Your task to perform on an android device: Open the calendar app, open the side menu, and click the "Day" option Image 0: 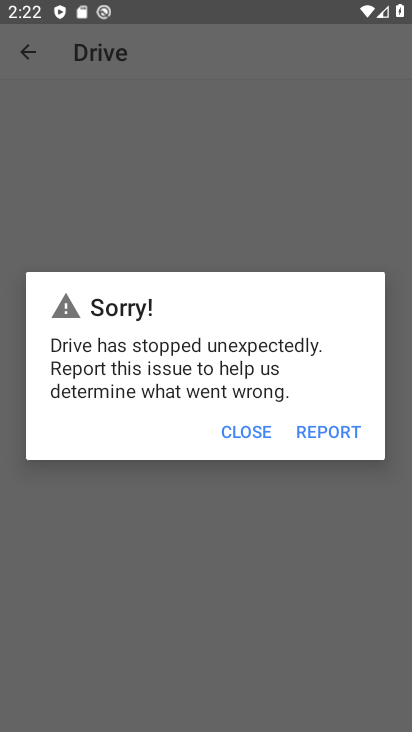
Step 0: press home button
Your task to perform on an android device: Open the calendar app, open the side menu, and click the "Day" option Image 1: 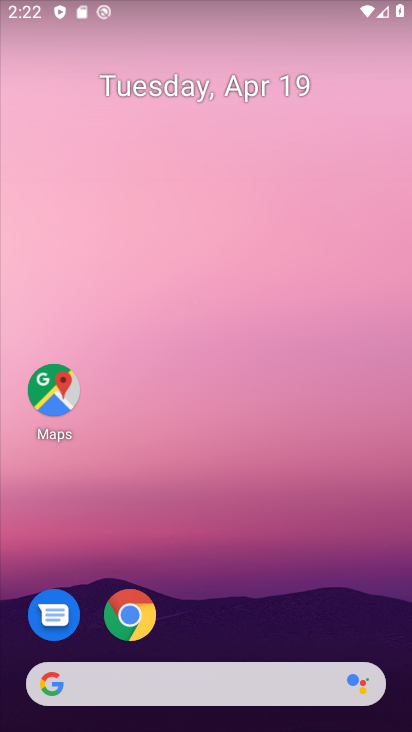
Step 1: drag from (200, 598) to (273, 137)
Your task to perform on an android device: Open the calendar app, open the side menu, and click the "Day" option Image 2: 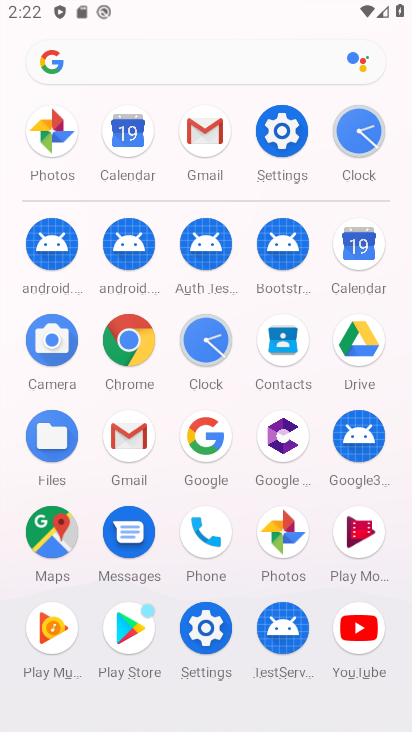
Step 2: click (355, 225)
Your task to perform on an android device: Open the calendar app, open the side menu, and click the "Day" option Image 3: 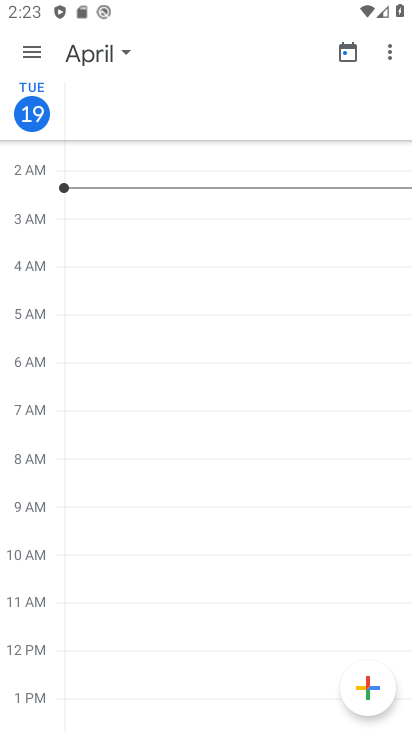
Step 3: drag from (68, 277) to (210, 634)
Your task to perform on an android device: Open the calendar app, open the side menu, and click the "Day" option Image 4: 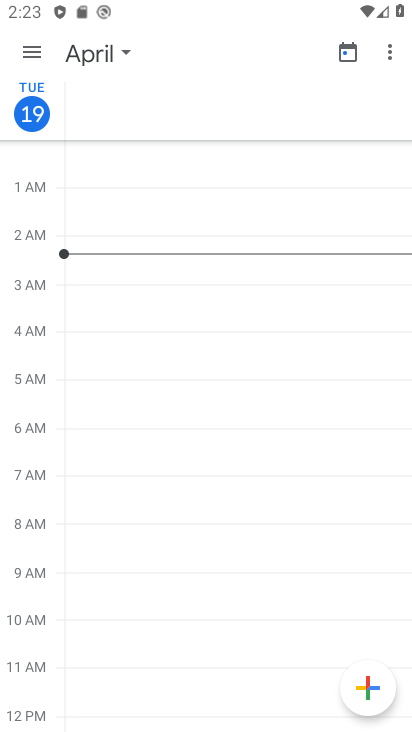
Step 4: click (1, 56)
Your task to perform on an android device: Open the calendar app, open the side menu, and click the "Day" option Image 5: 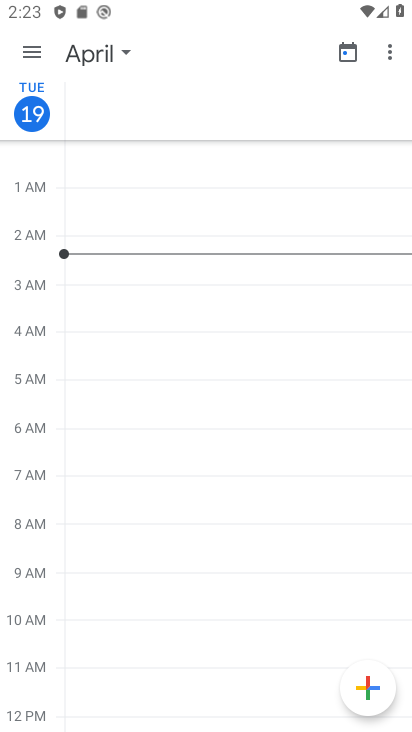
Step 5: click (27, 56)
Your task to perform on an android device: Open the calendar app, open the side menu, and click the "Day" option Image 6: 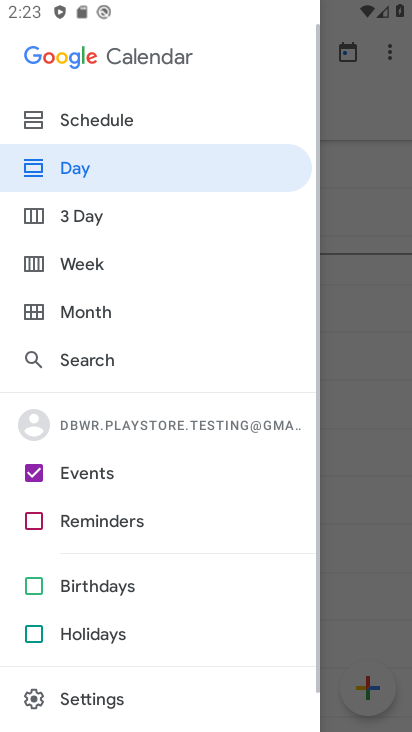
Step 6: click (118, 172)
Your task to perform on an android device: Open the calendar app, open the side menu, and click the "Day" option Image 7: 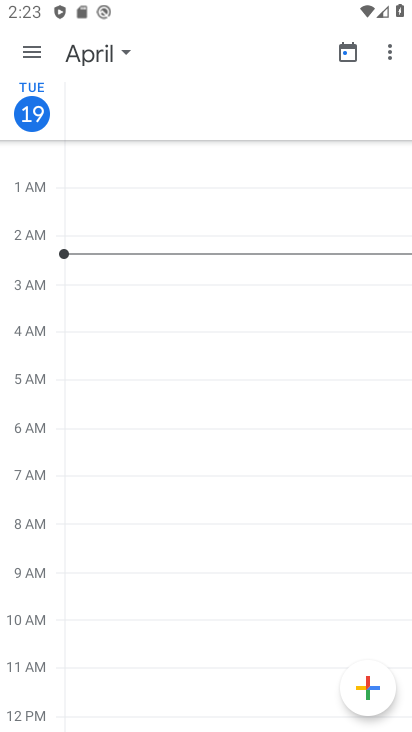
Step 7: task complete